Your task to perform on an android device: manage bookmarks in the chrome app Image 0: 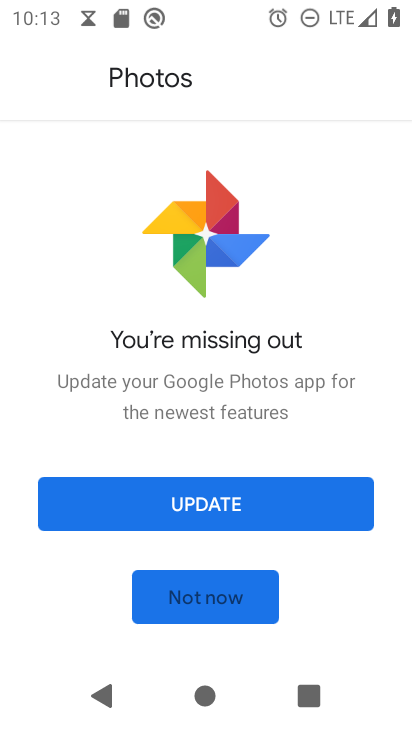
Step 0: press home button
Your task to perform on an android device: manage bookmarks in the chrome app Image 1: 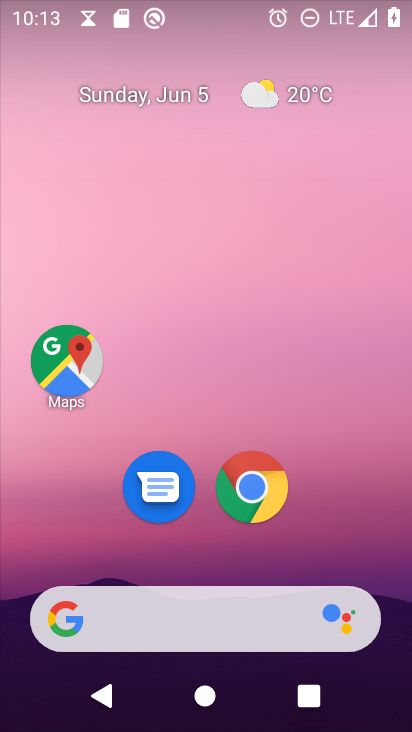
Step 1: click (251, 462)
Your task to perform on an android device: manage bookmarks in the chrome app Image 2: 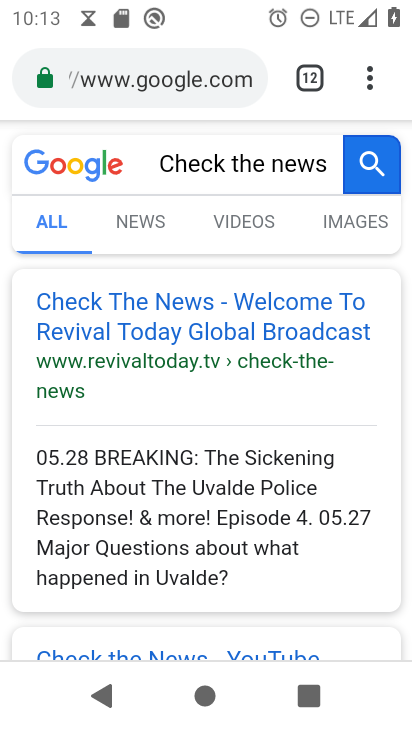
Step 2: click (362, 74)
Your task to perform on an android device: manage bookmarks in the chrome app Image 3: 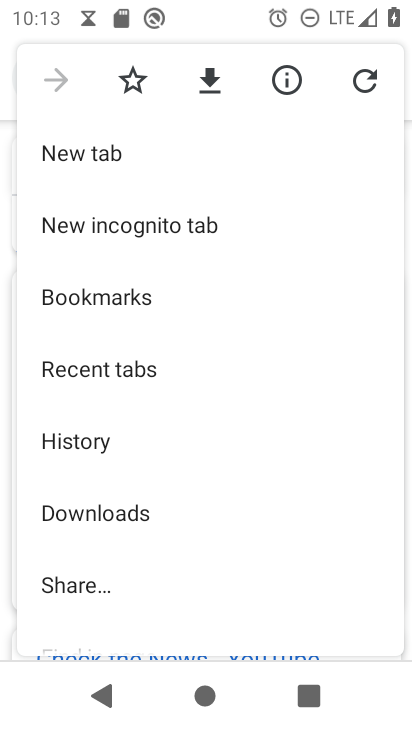
Step 3: click (143, 302)
Your task to perform on an android device: manage bookmarks in the chrome app Image 4: 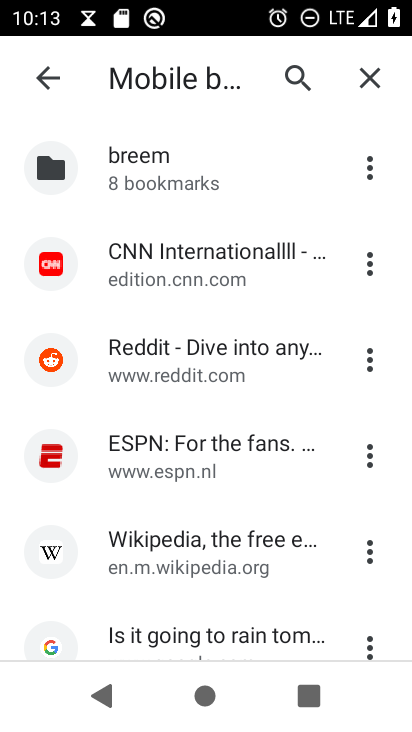
Step 4: click (100, 276)
Your task to perform on an android device: manage bookmarks in the chrome app Image 5: 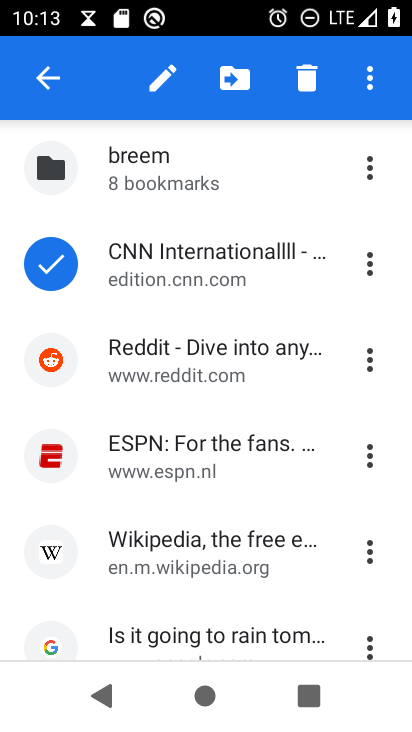
Step 5: click (227, 66)
Your task to perform on an android device: manage bookmarks in the chrome app Image 6: 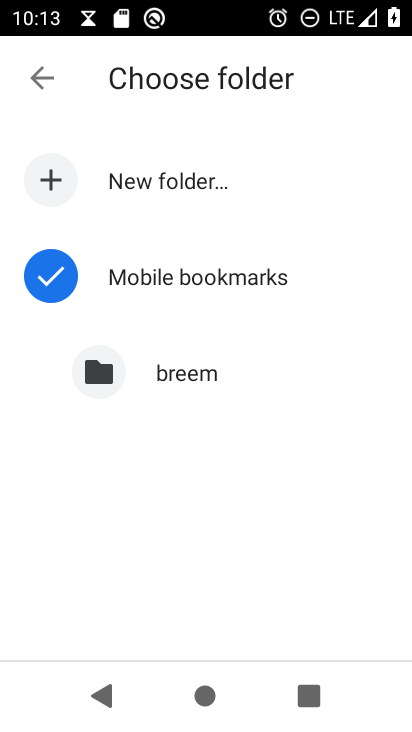
Step 6: click (182, 362)
Your task to perform on an android device: manage bookmarks in the chrome app Image 7: 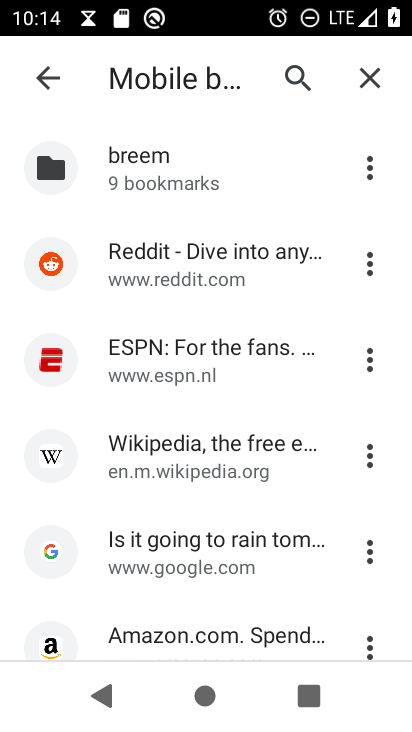
Step 7: task complete